Your task to perform on an android device: turn off picture-in-picture Image 0: 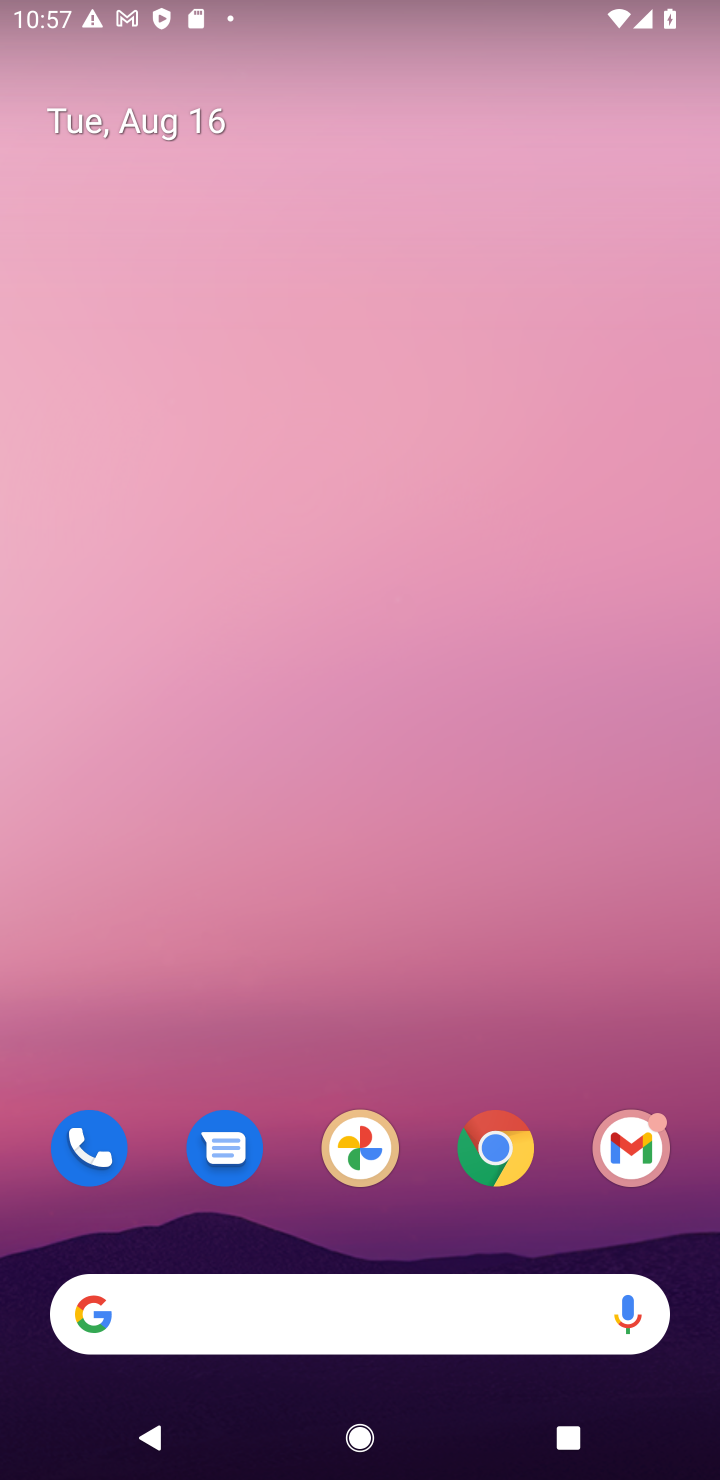
Step 0: press home button
Your task to perform on an android device: turn off picture-in-picture Image 1: 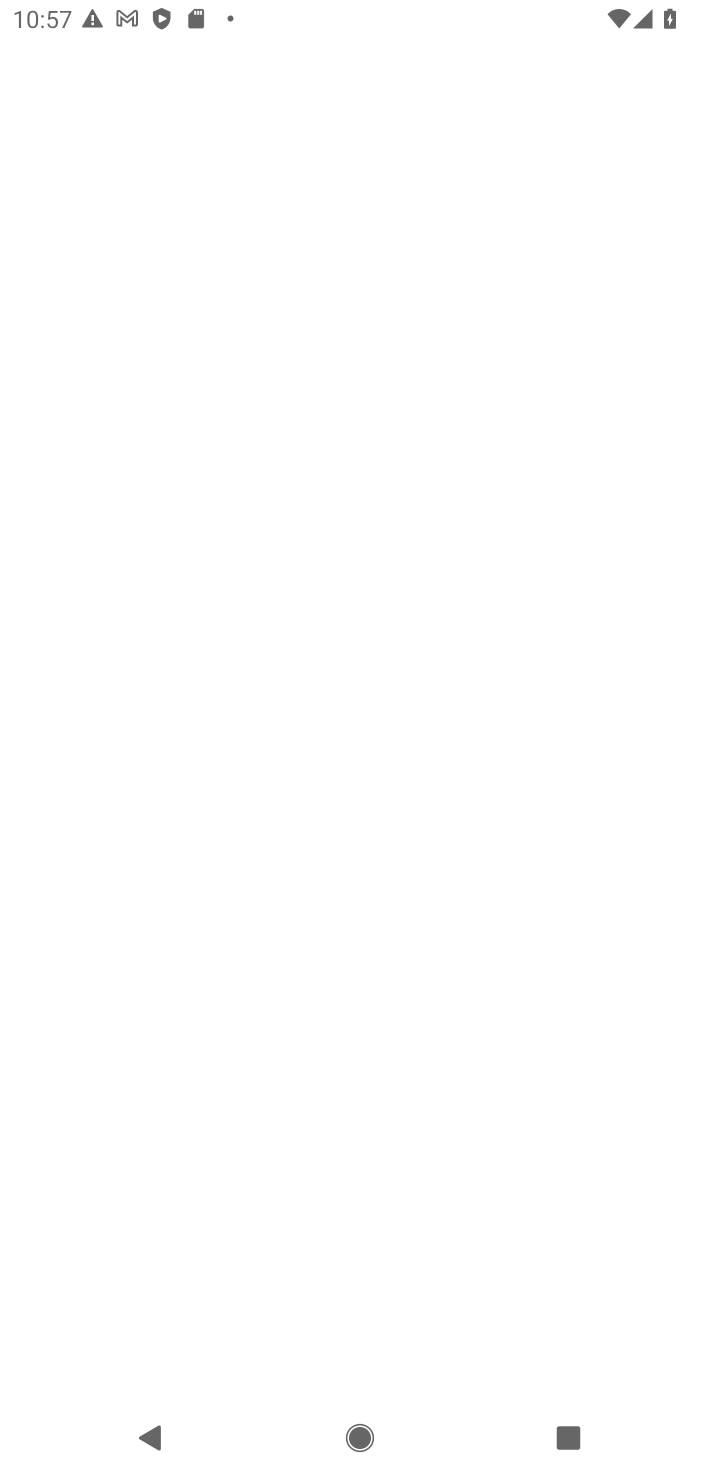
Step 1: press home button
Your task to perform on an android device: turn off picture-in-picture Image 2: 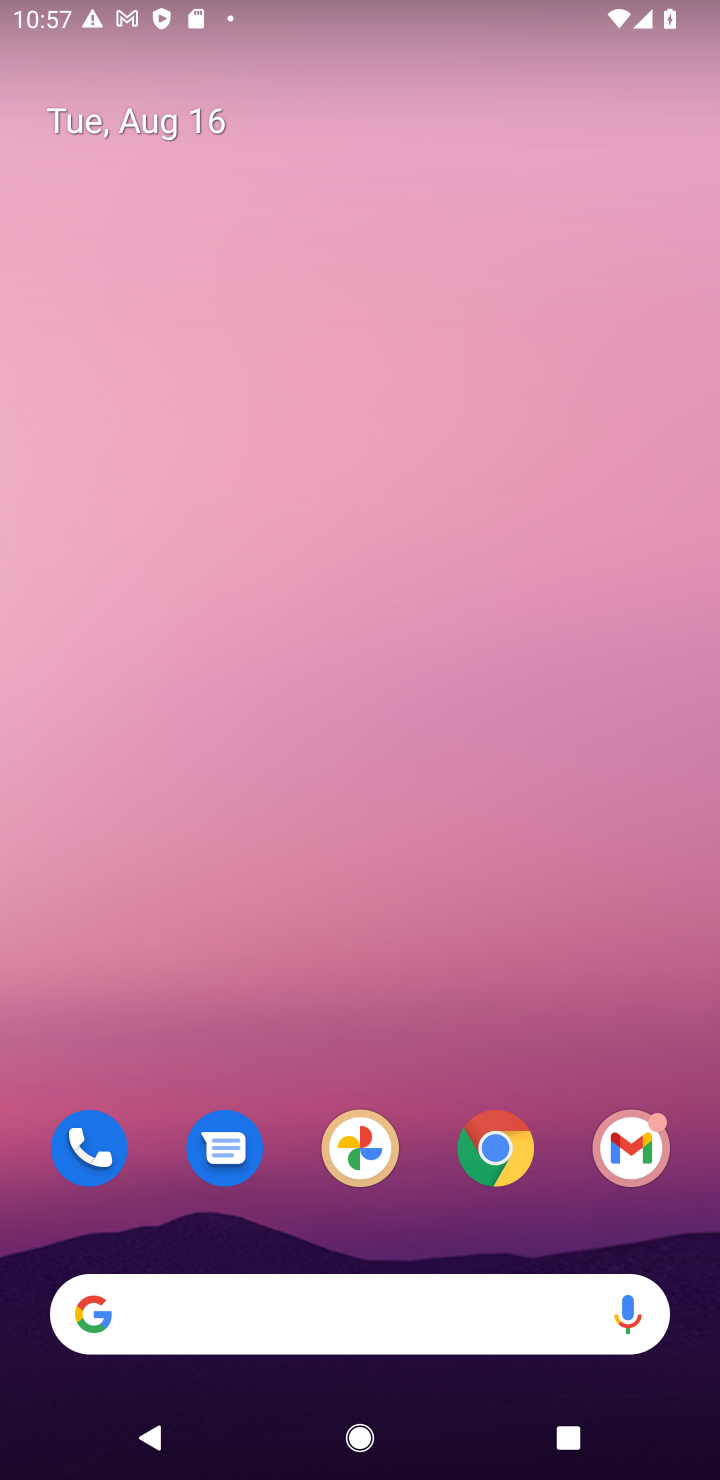
Step 2: drag from (227, 917) to (550, 5)
Your task to perform on an android device: turn off picture-in-picture Image 3: 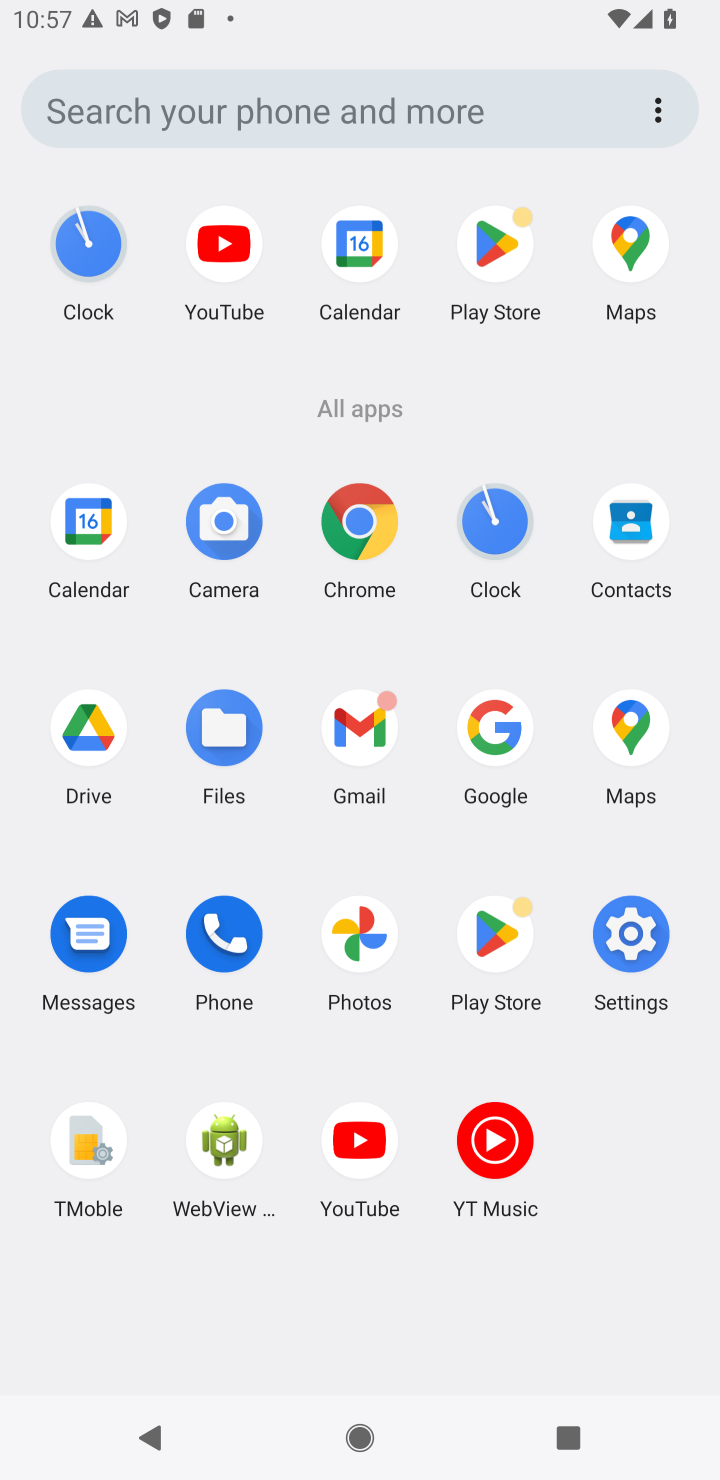
Step 3: click (289, 615)
Your task to perform on an android device: turn off picture-in-picture Image 4: 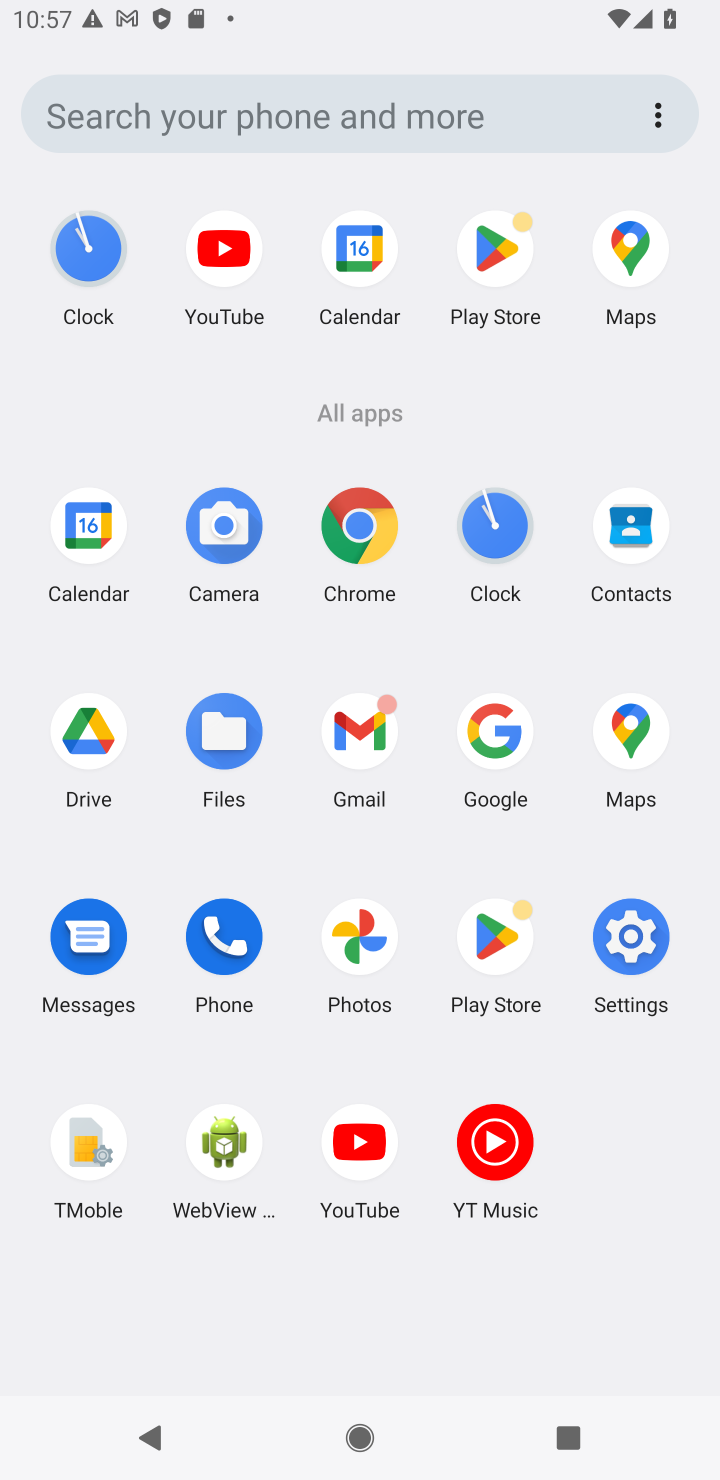
Step 4: click (373, 519)
Your task to perform on an android device: turn off picture-in-picture Image 5: 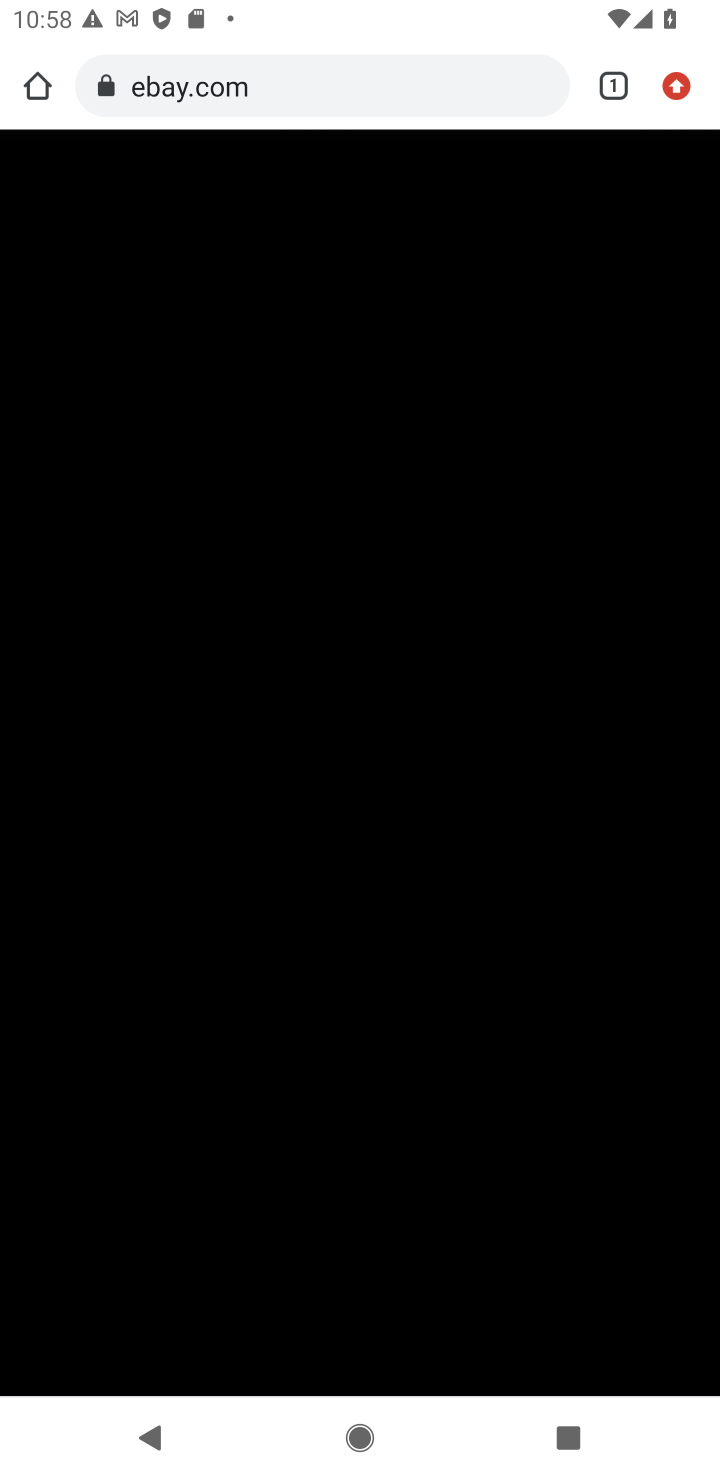
Step 5: click (673, 83)
Your task to perform on an android device: turn off picture-in-picture Image 6: 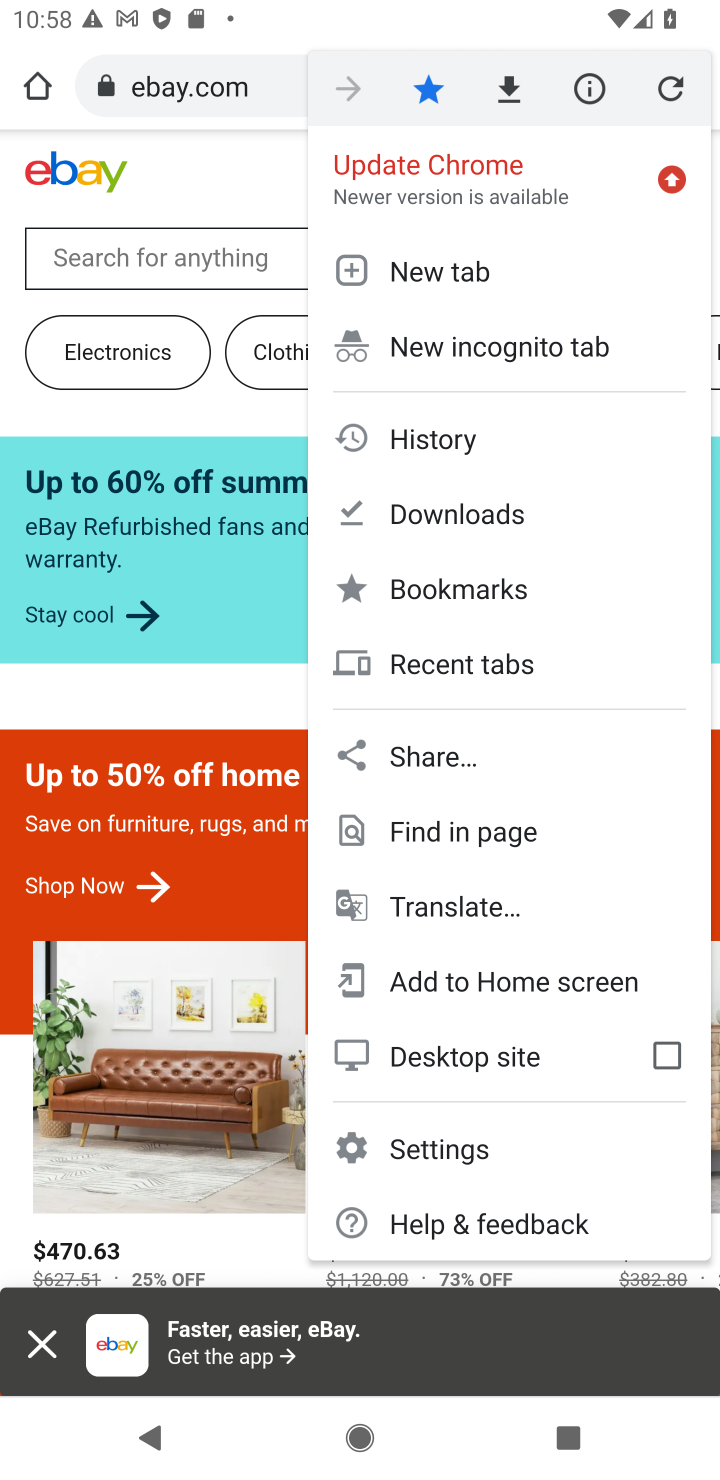
Step 6: click (404, 1151)
Your task to perform on an android device: turn off picture-in-picture Image 7: 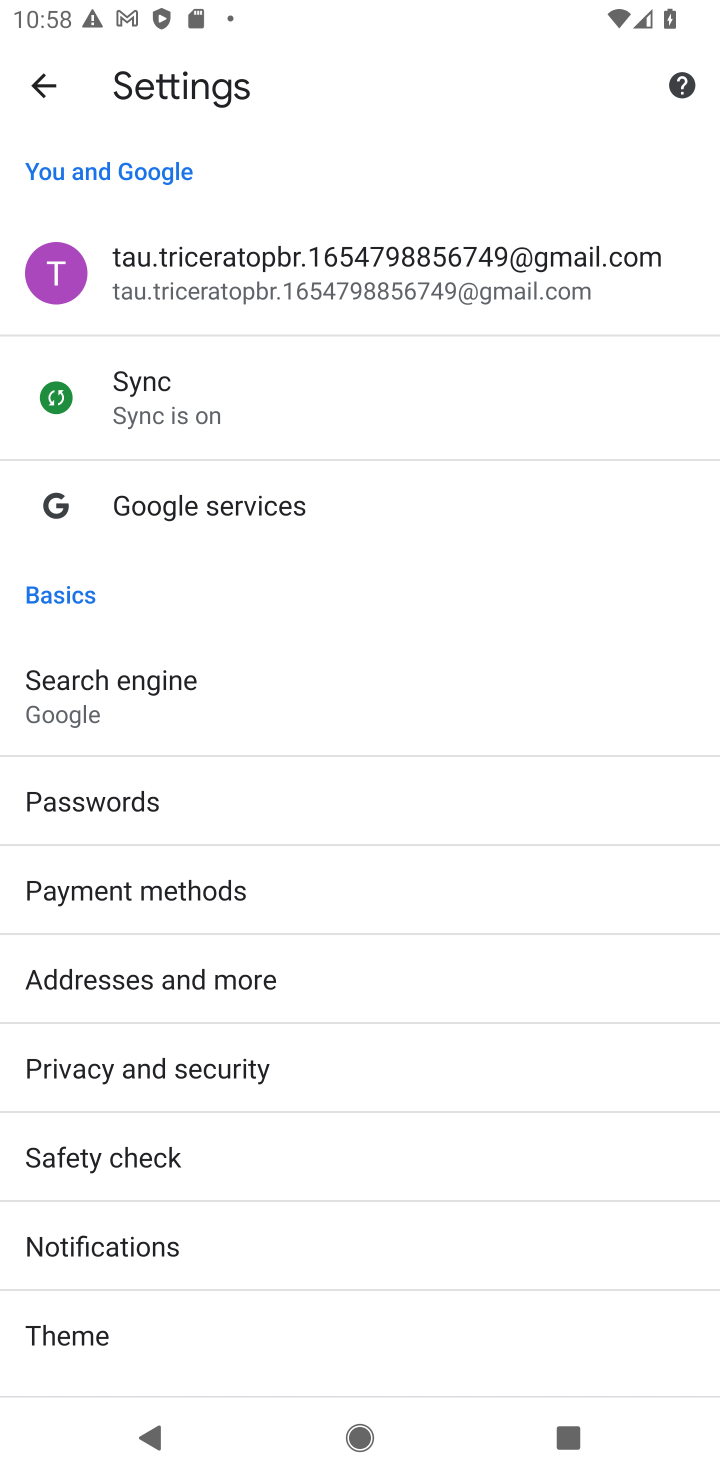
Step 7: drag from (266, 1217) to (221, 296)
Your task to perform on an android device: turn off picture-in-picture Image 8: 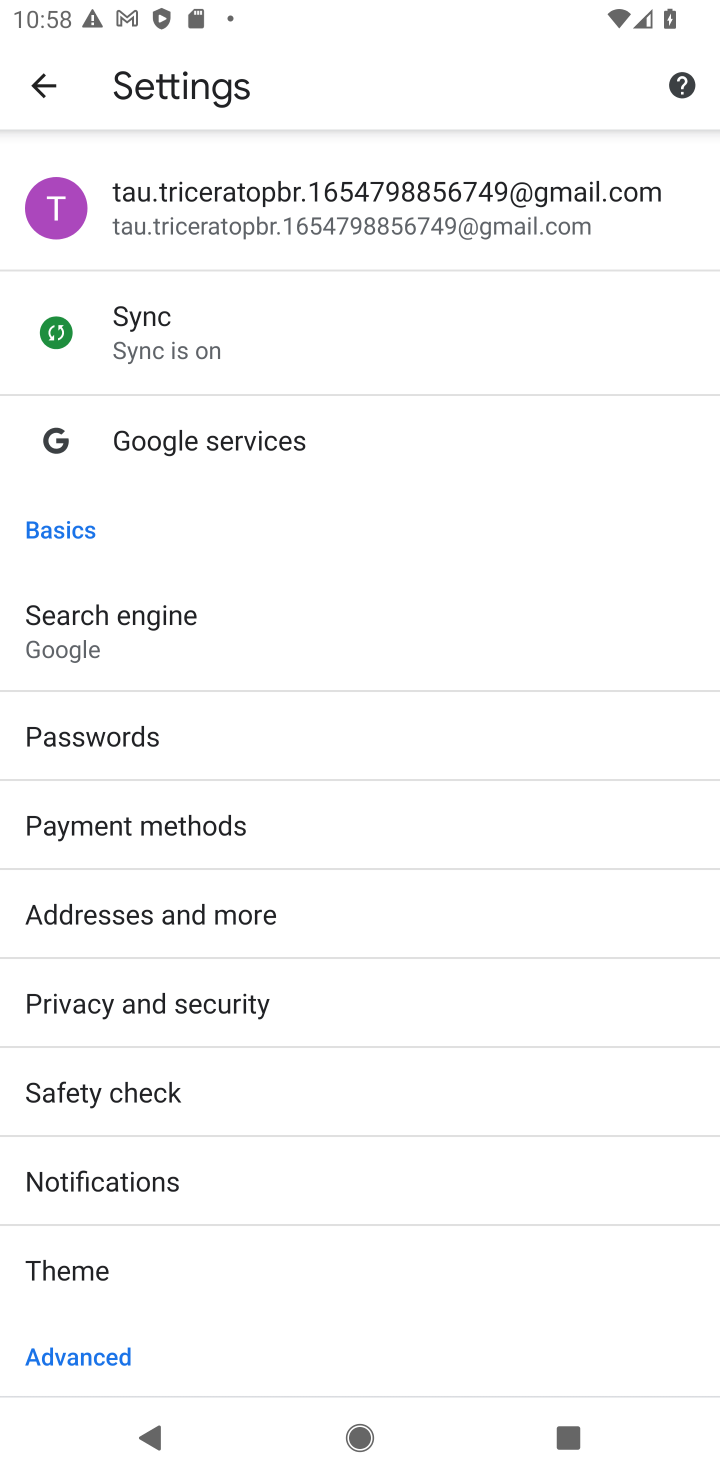
Step 8: drag from (118, 1255) to (138, 790)
Your task to perform on an android device: turn off picture-in-picture Image 9: 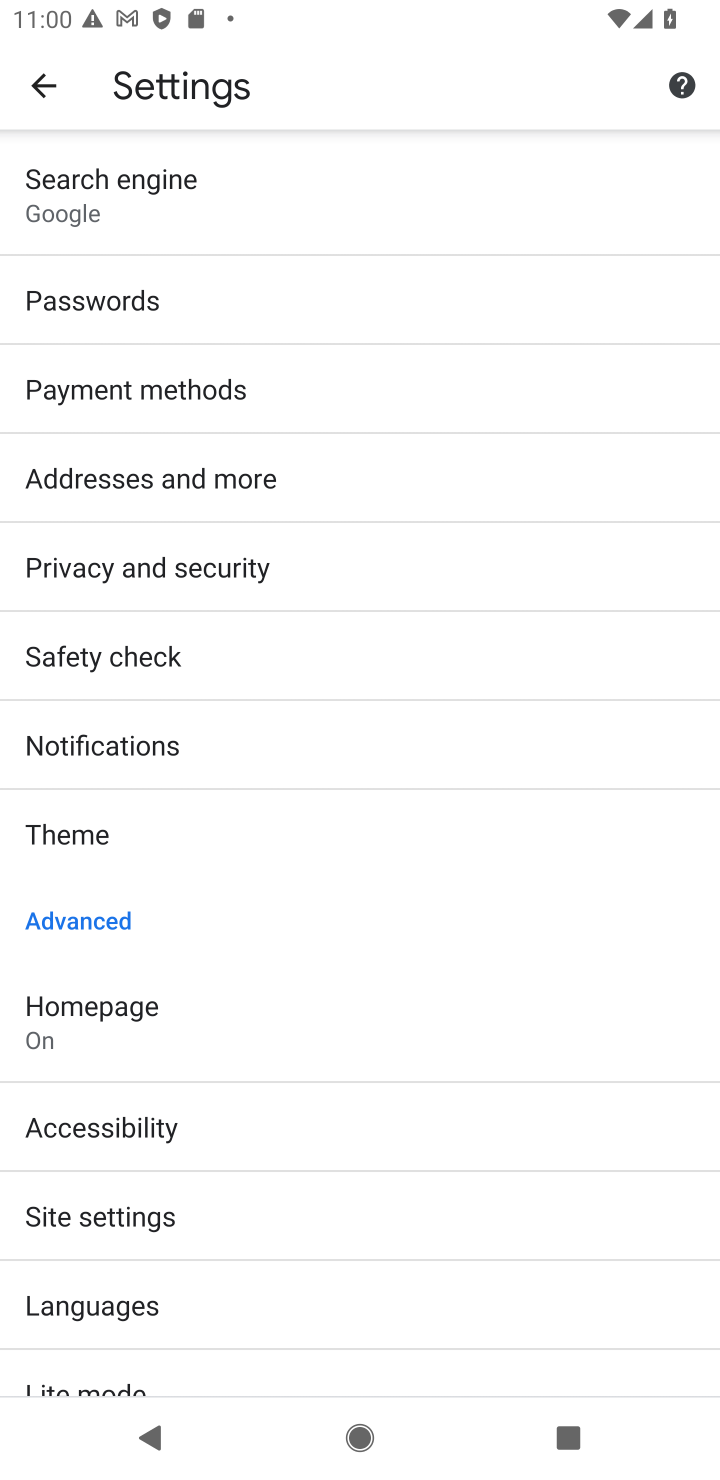
Step 9: click (345, 1206)
Your task to perform on an android device: turn off picture-in-picture Image 10: 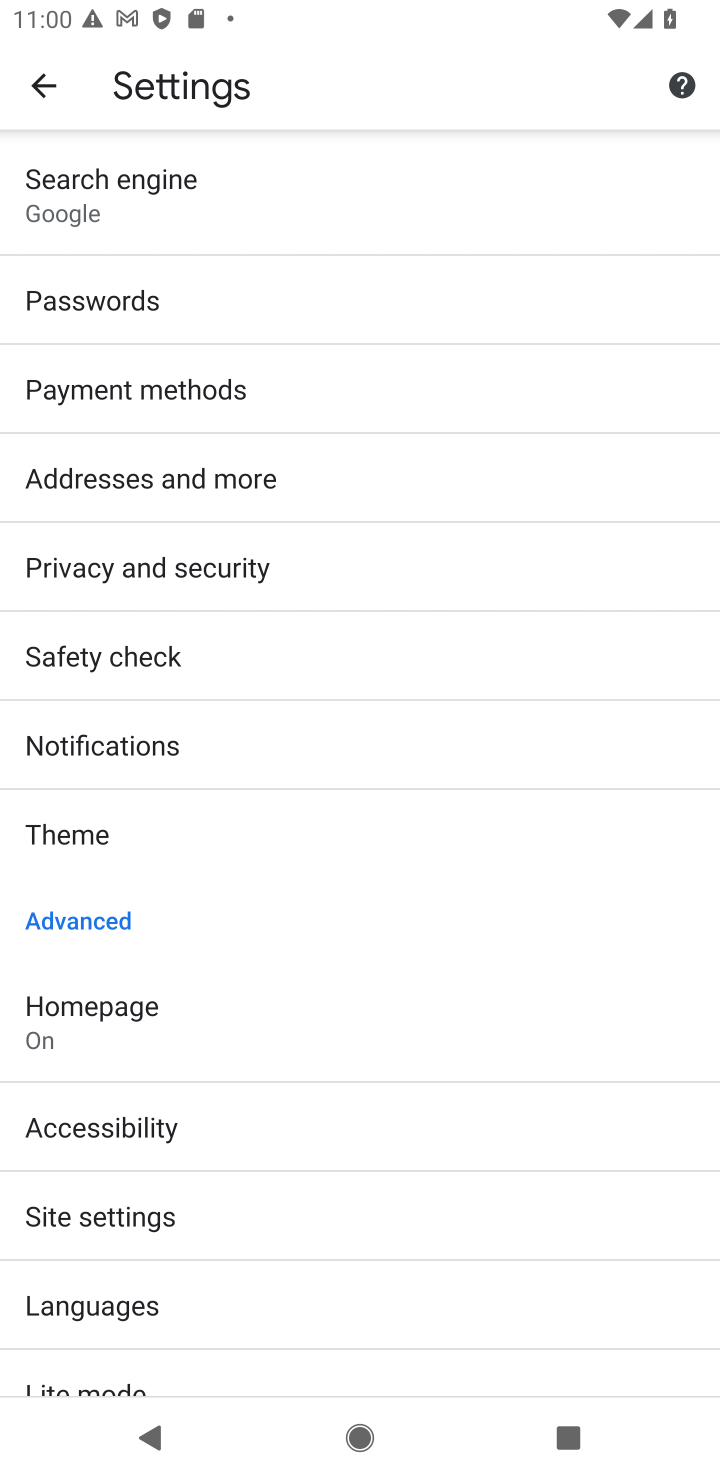
Step 10: click (345, 1206)
Your task to perform on an android device: turn off picture-in-picture Image 11: 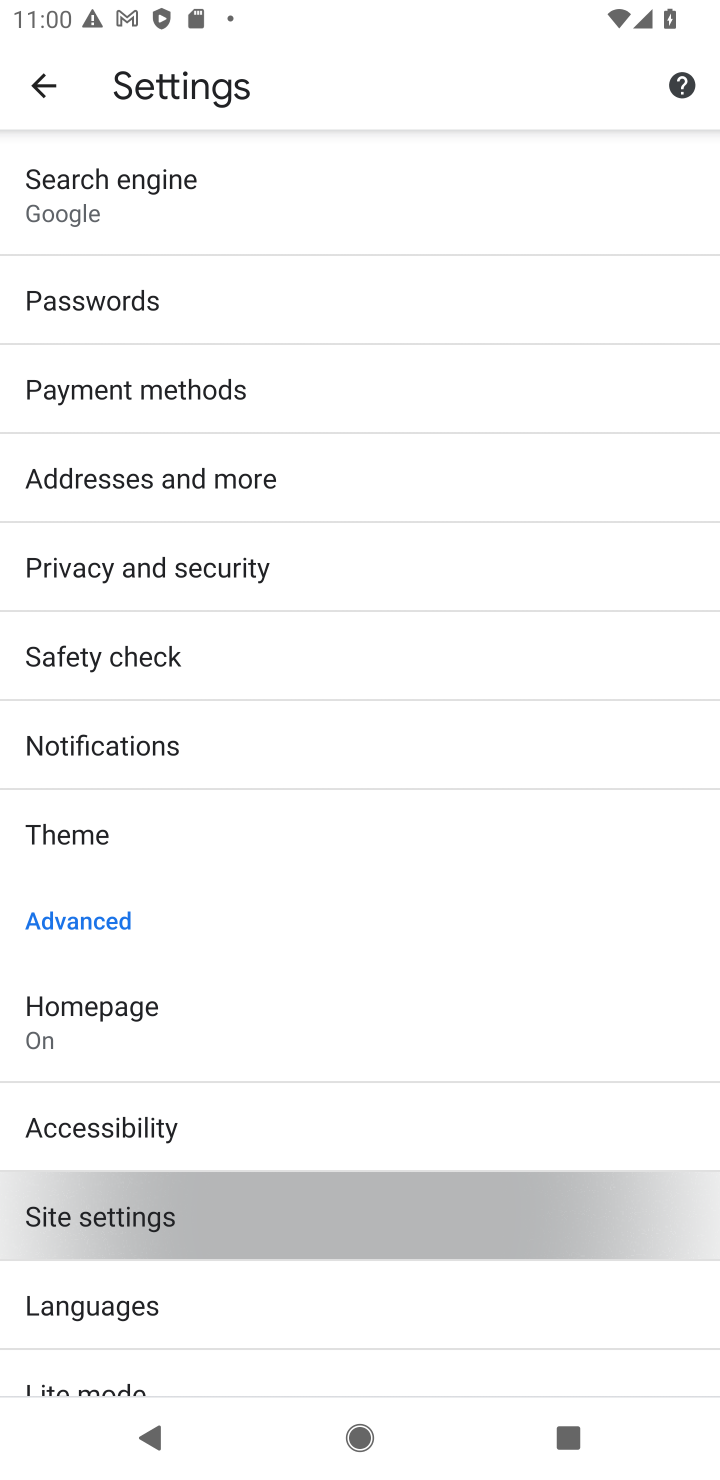
Step 11: click (345, 1206)
Your task to perform on an android device: turn off picture-in-picture Image 12: 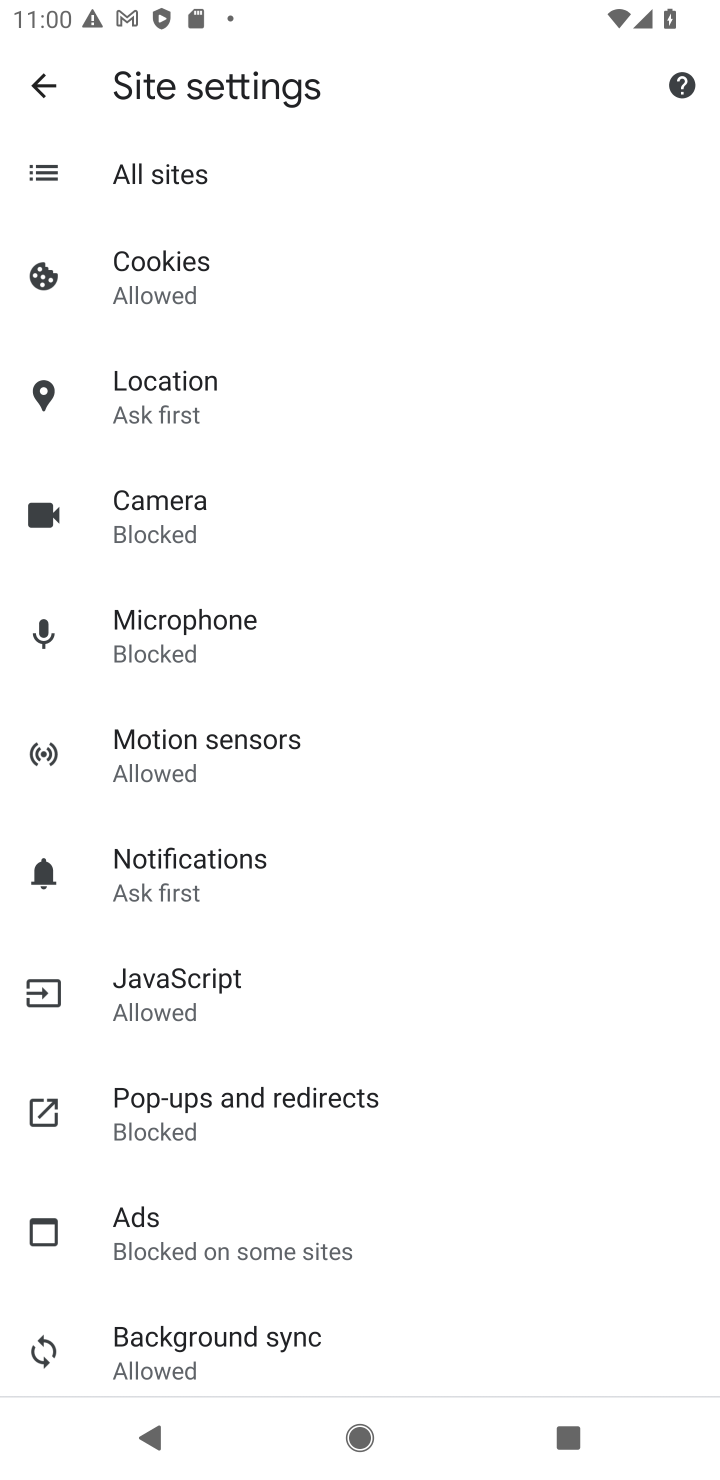
Step 12: click (313, 1132)
Your task to perform on an android device: turn off picture-in-picture Image 13: 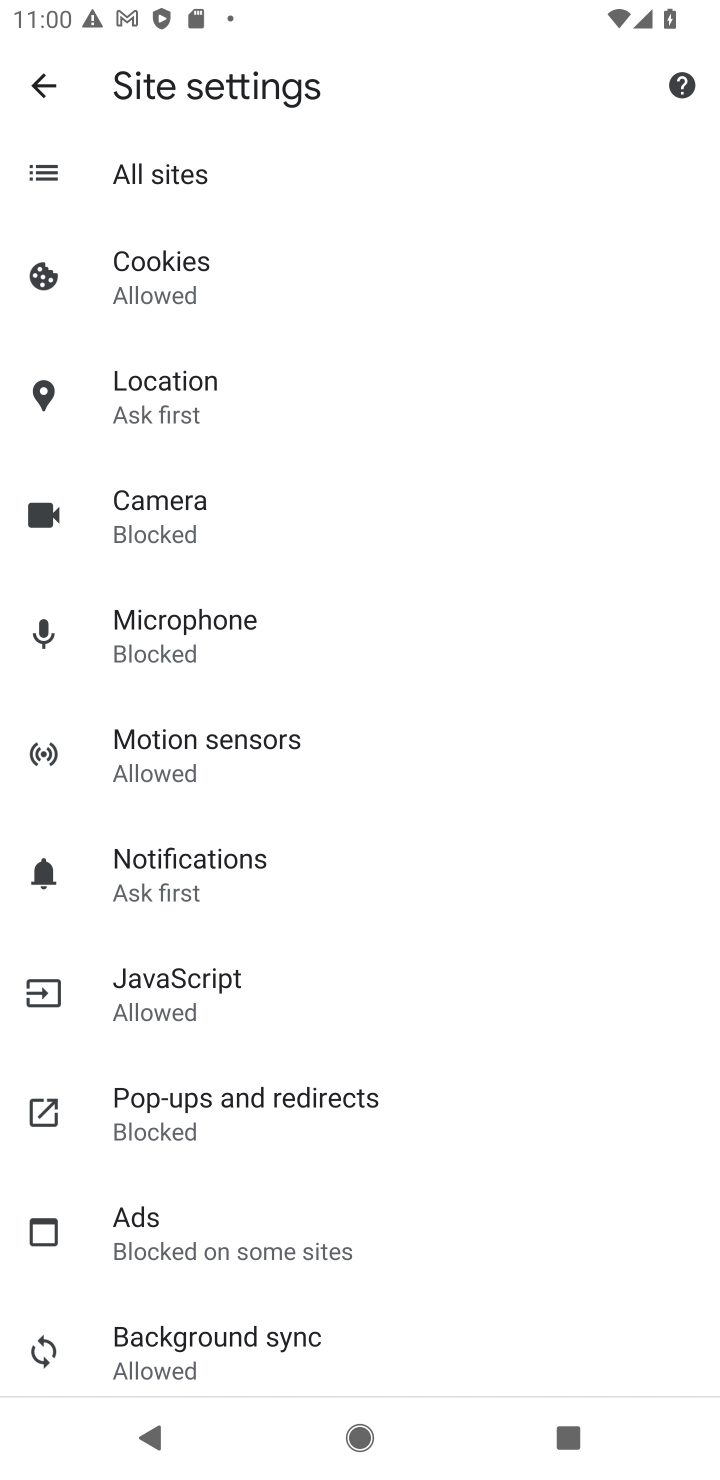
Step 13: click (313, 1132)
Your task to perform on an android device: turn off picture-in-picture Image 14: 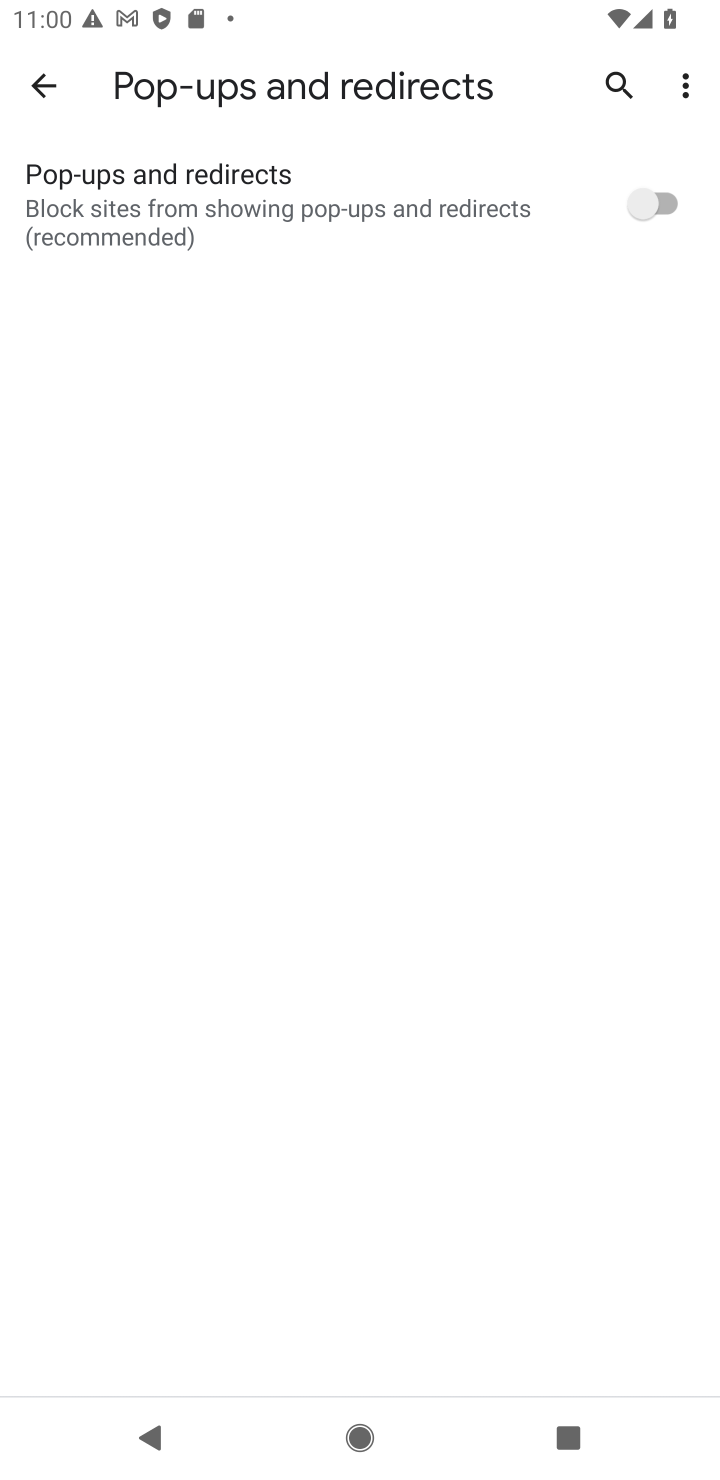
Step 14: task complete